Your task to perform on an android device: Open Wikipedia Image 0: 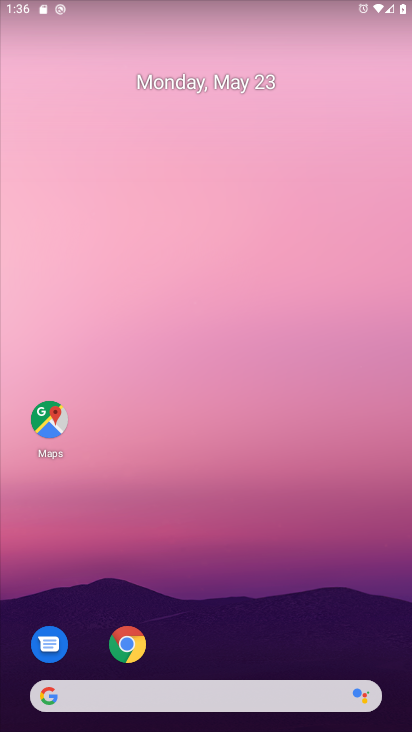
Step 0: click (128, 647)
Your task to perform on an android device: Open Wikipedia Image 1: 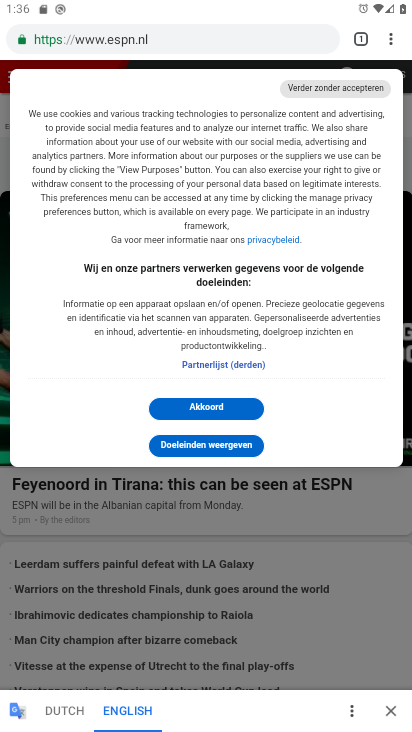
Step 1: press back button
Your task to perform on an android device: Open Wikipedia Image 2: 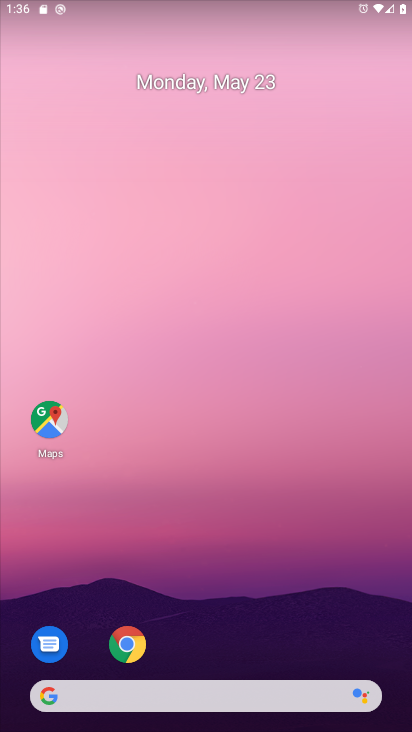
Step 2: click (132, 652)
Your task to perform on an android device: Open Wikipedia Image 3: 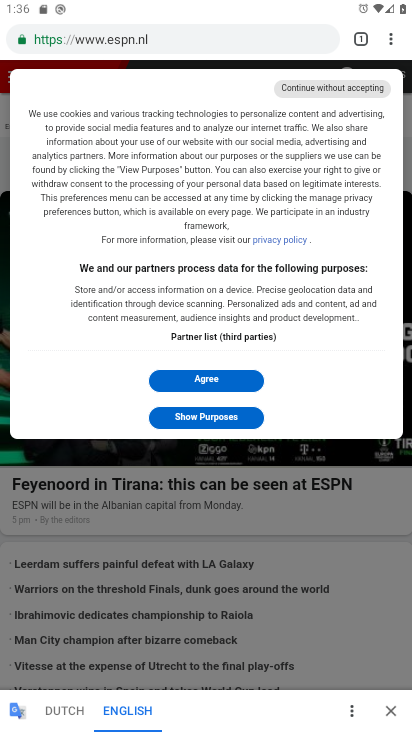
Step 3: press back button
Your task to perform on an android device: Open Wikipedia Image 4: 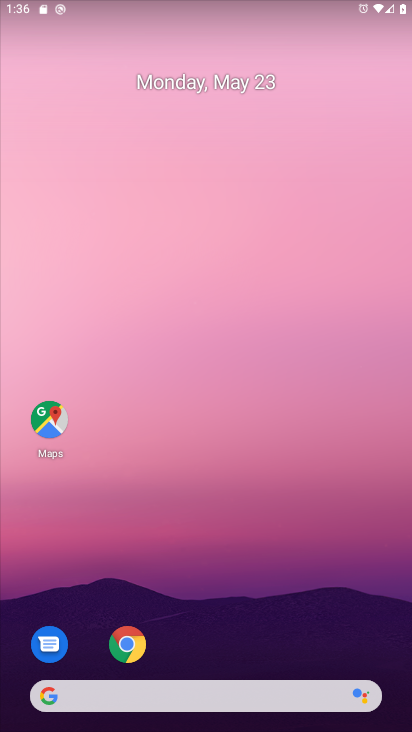
Step 4: click (128, 644)
Your task to perform on an android device: Open Wikipedia Image 5: 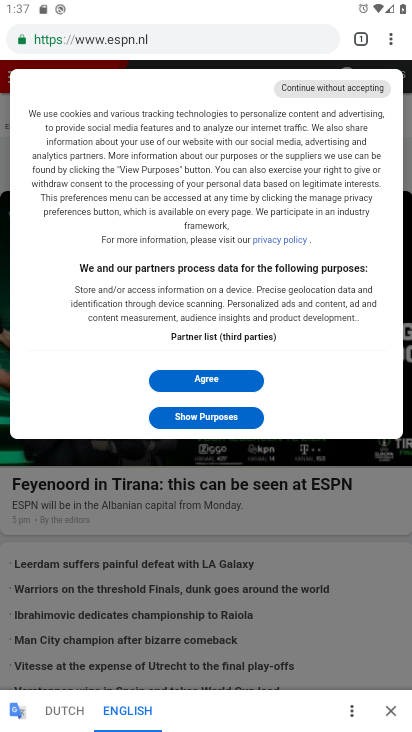
Step 5: click (127, 39)
Your task to perform on an android device: Open Wikipedia Image 6: 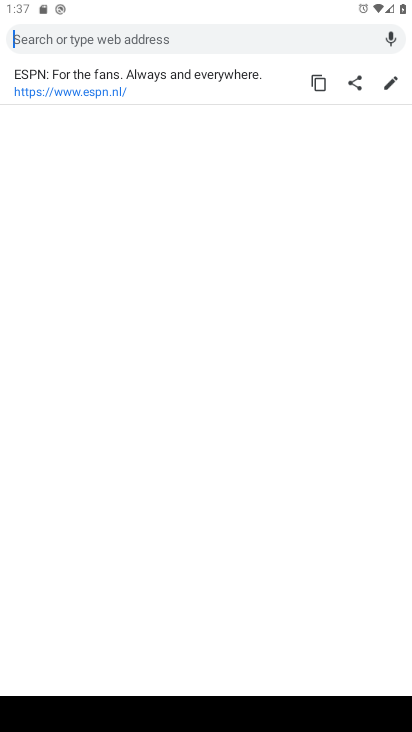
Step 6: type "www.wikipedia.com"
Your task to perform on an android device: Open Wikipedia Image 7: 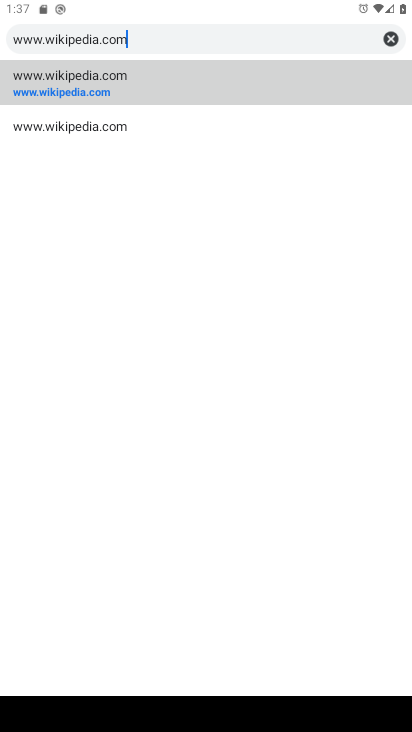
Step 7: click (50, 78)
Your task to perform on an android device: Open Wikipedia Image 8: 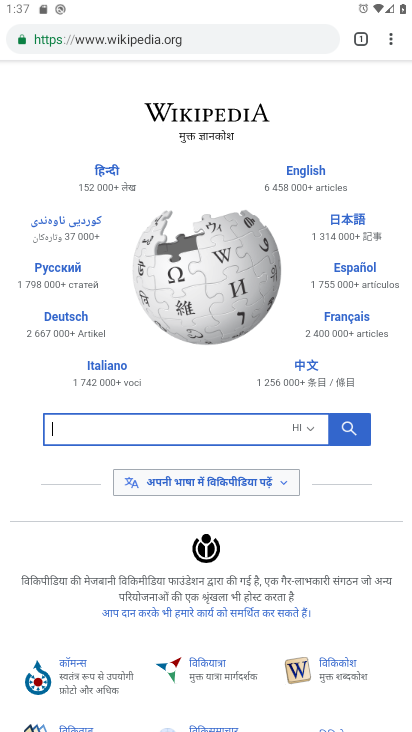
Step 8: task complete